Your task to perform on an android device: toggle notification dots Image 0: 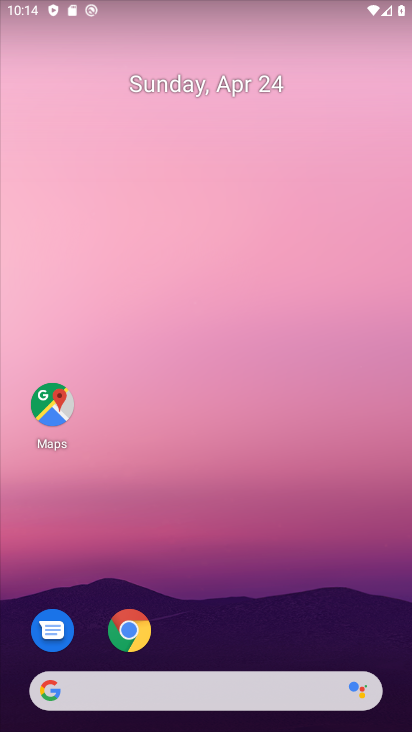
Step 0: drag from (194, 567) to (215, 109)
Your task to perform on an android device: toggle notification dots Image 1: 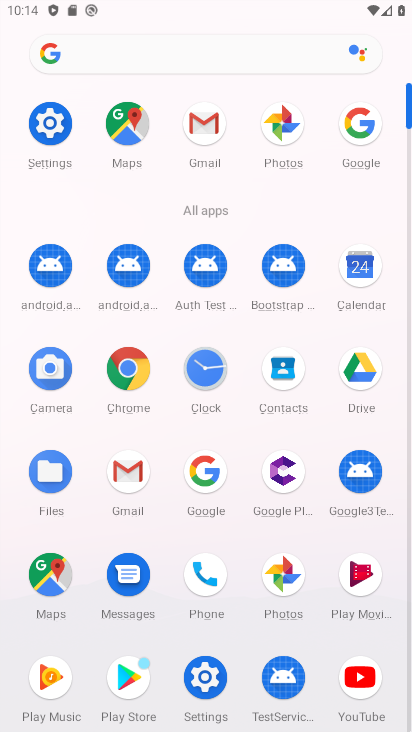
Step 1: click (48, 133)
Your task to perform on an android device: toggle notification dots Image 2: 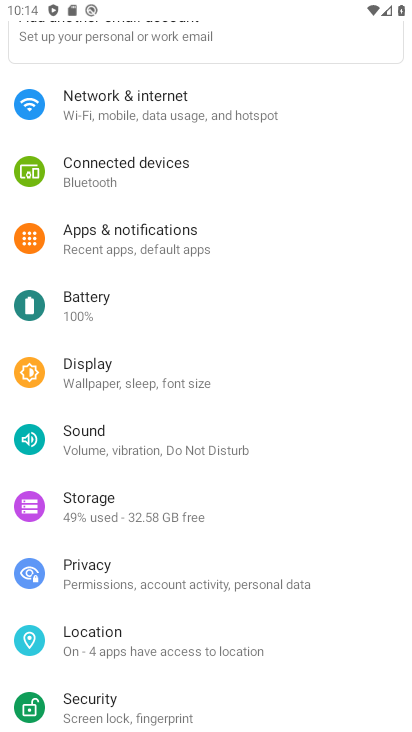
Step 2: click (149, 230)
Your task to perform on an android device: toggle notification dots Image 3: 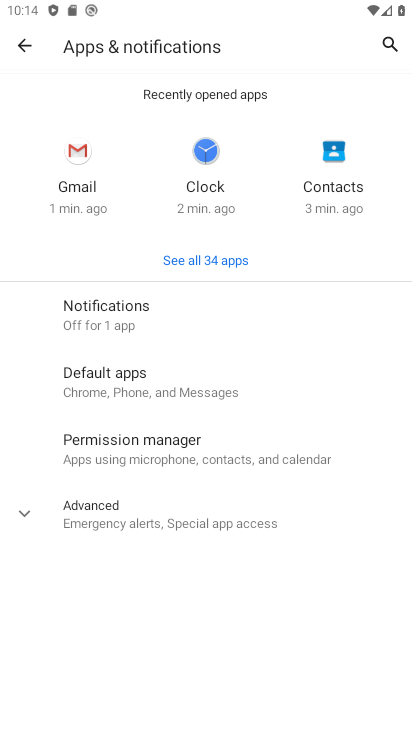
Step 3: click (120, 299)
Your task to perform on an android device: toggle notification dots Image 4: 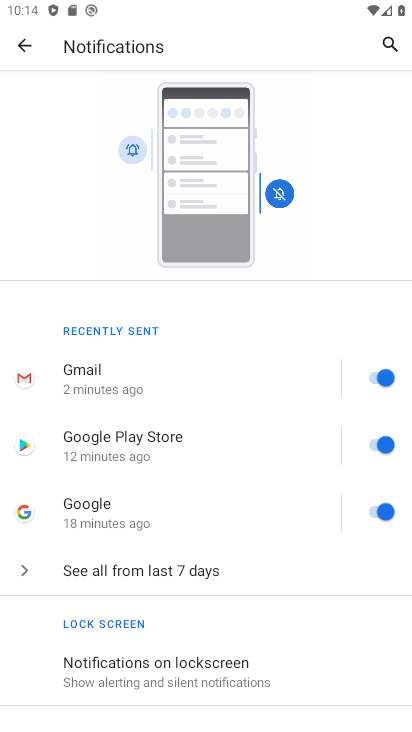
Step 4: drag from (276, 609) to (282, 377)
Your task to perform on an android device: toggle notification dots Image 5: 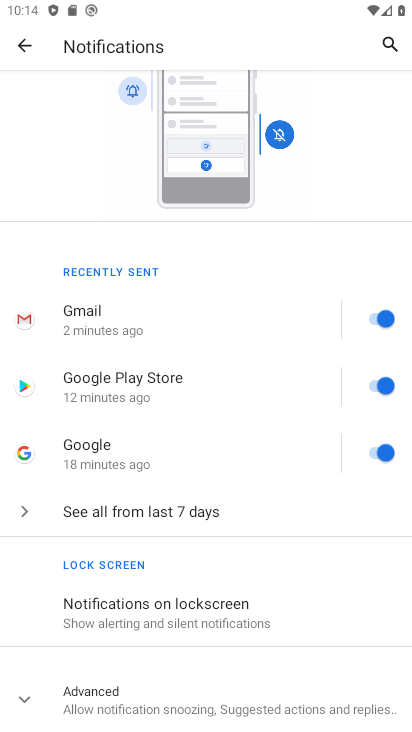
Step 5: click (239, 688)
Your task to perform on an android device: toggle notification dots Image 6: 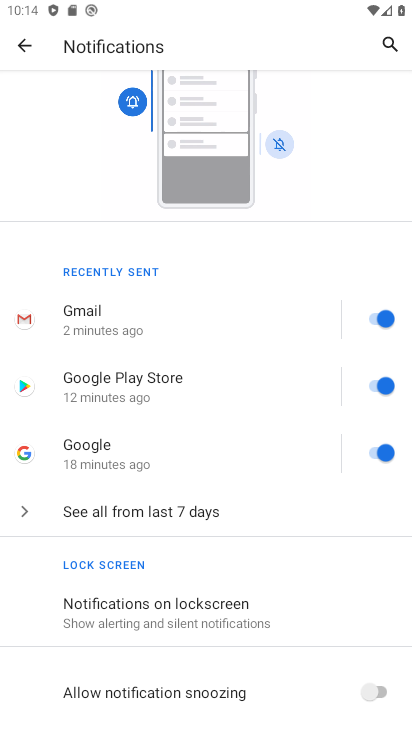
Step 6: drag from (247, 630) to (273, 334)
Your task to perform on an android device: toggle notification dots Image 7: 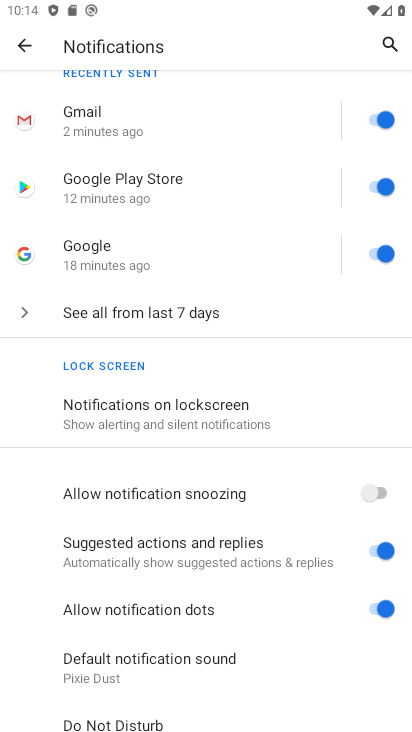
Step 7: click (370, 606)
Your task to perform on an android device: toggle notification dots Image 8: 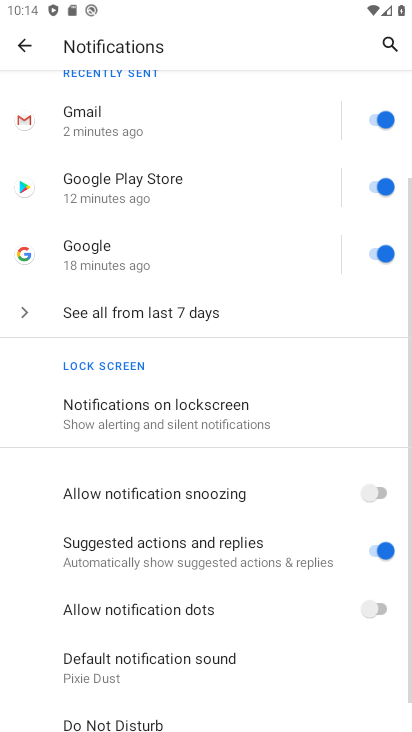
Step 8: task complete